Your task to perform on an android device: check android version Image 0: 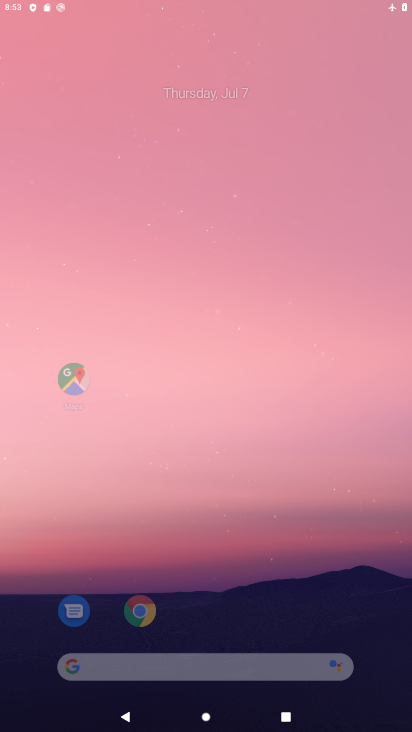
Step 0: click (237, 674)
Your task to perform on an android device: check android version Image 1: 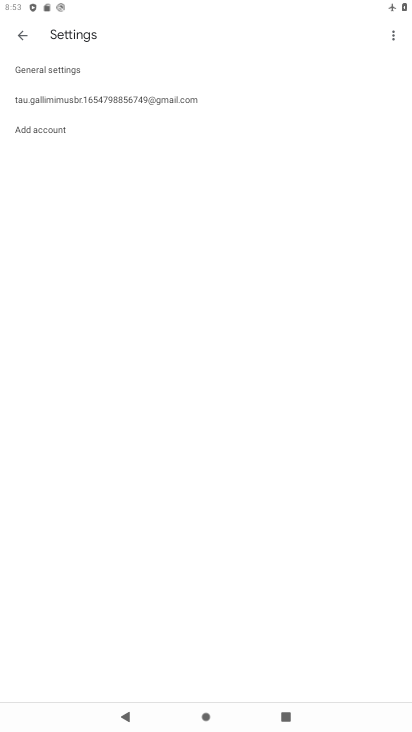
Step 1: press home button
Your task to perform on an android device: check android version Image 2: 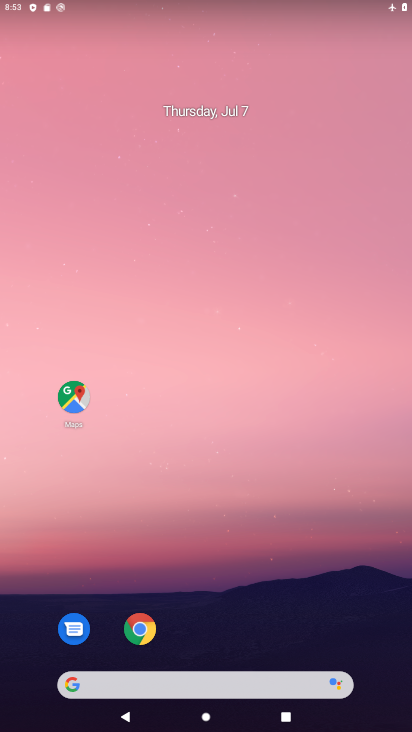
Step 2: drag from (199, 515) to (150, 2)
Your task to perform on an android device: check android version Image 3: 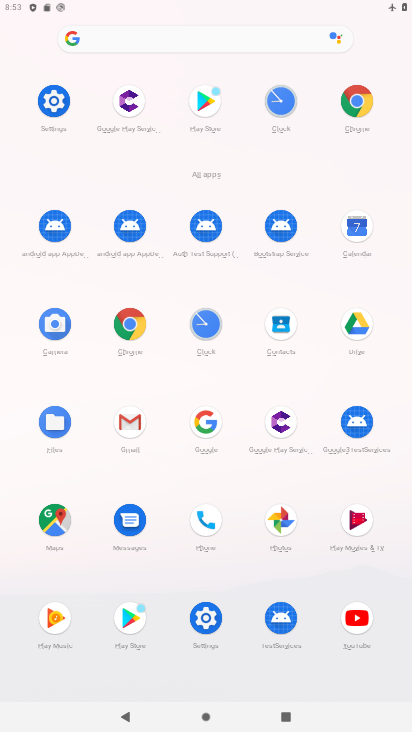
Step 3: click (51, 98)
Your task to perform on an android device: check android version Image 4: 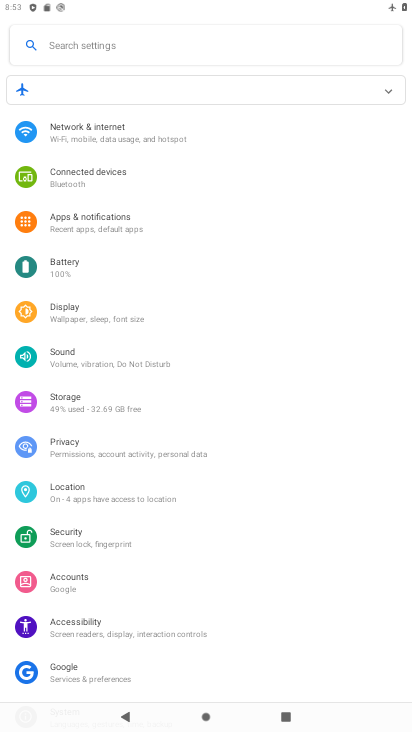
Step 4: drag from (235, 626) to (179, 337)
Your task to perform on an android device: check android version Image 5: 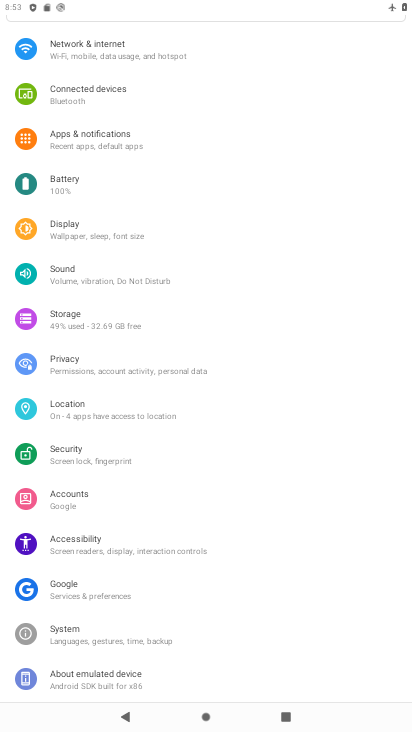
Step 5: click (94, 674)
Your task to perform on an android device: check android version Image 6: 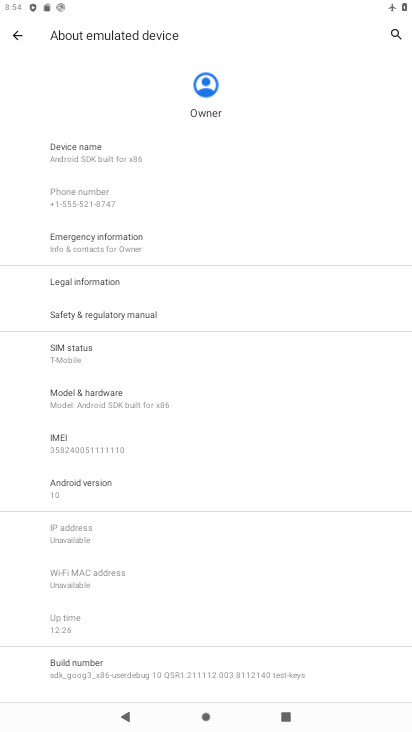
Step 6: task complete